Your task to perform on an android device: check data usage Image 0: 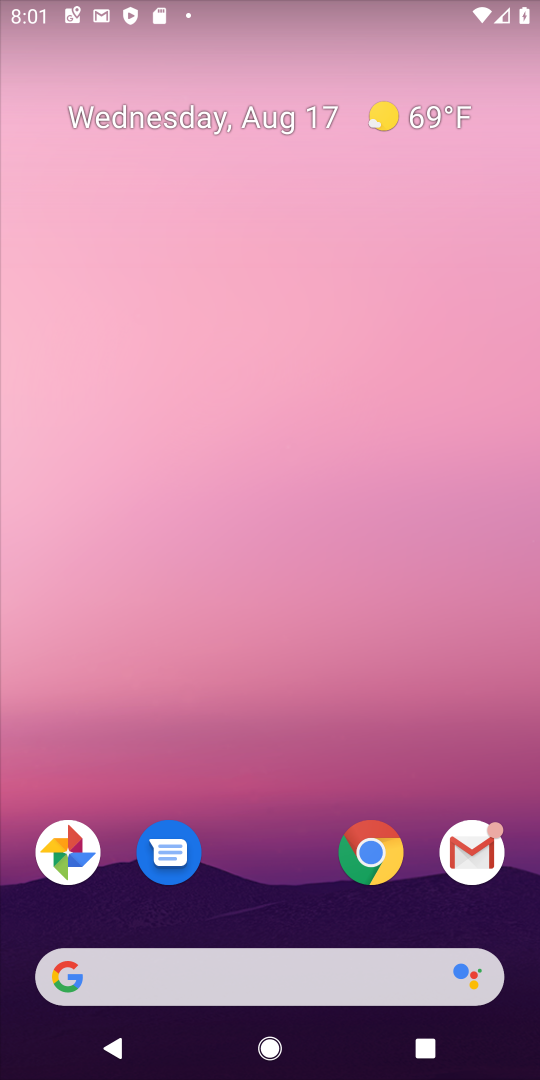
Step 0: drag from (267, 916) to (179, 415)
Your task to perform on an android device: check data usage Image 1: 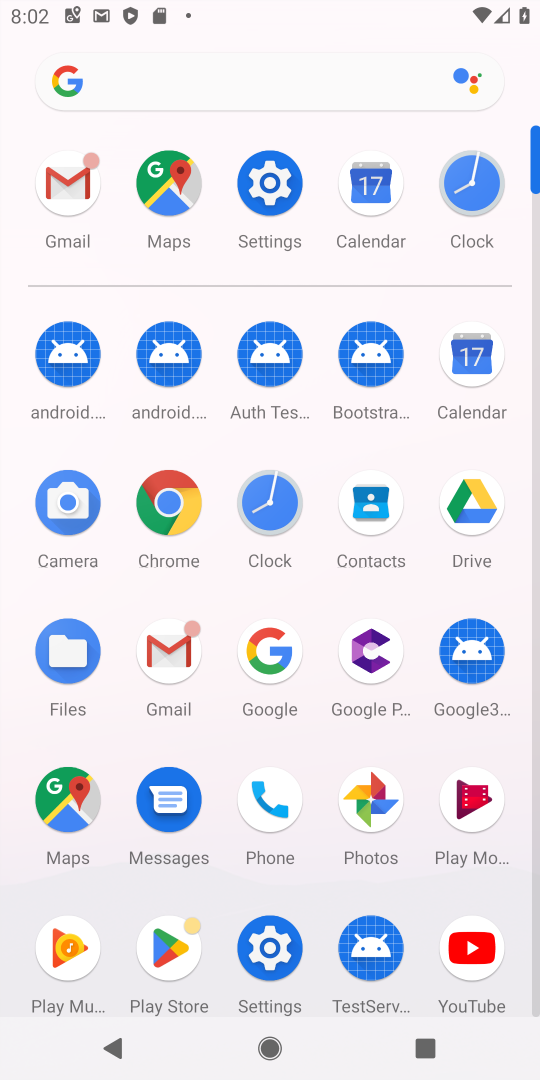
Step 1: click (265, 176)
Your task to perform on an android device: check data usage Image 2: 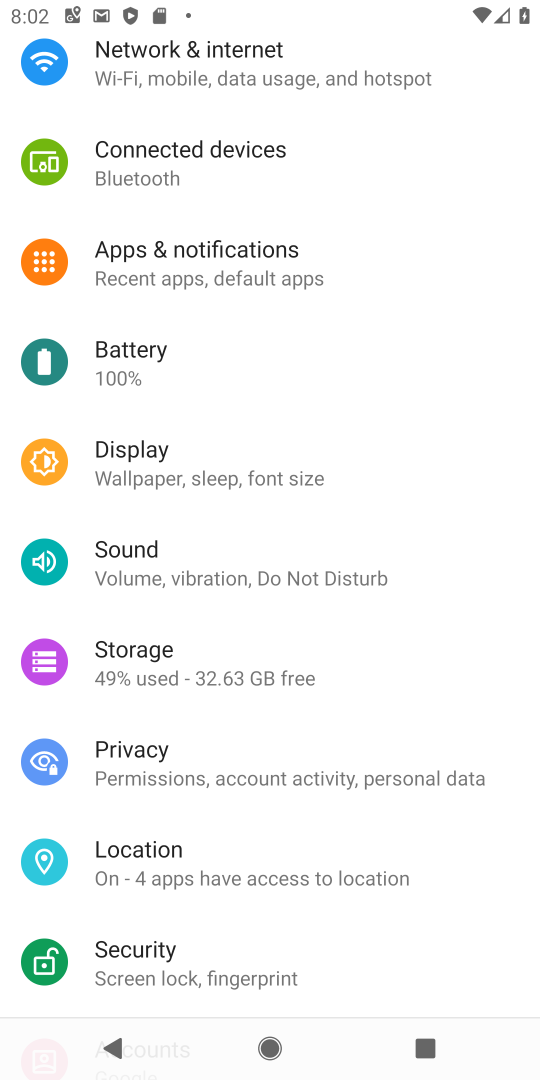
Step 2: click (191, 52)
Your task to perform on an android device: check data usage Image 3: 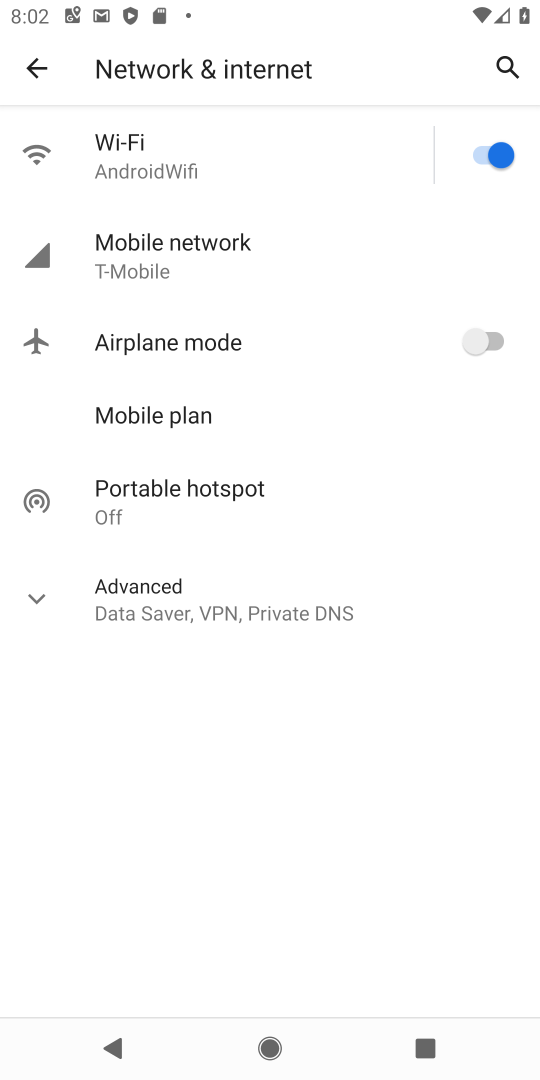
Step 3: click (134, 245)
Your task to perform on an android device: check data usage Image 4: 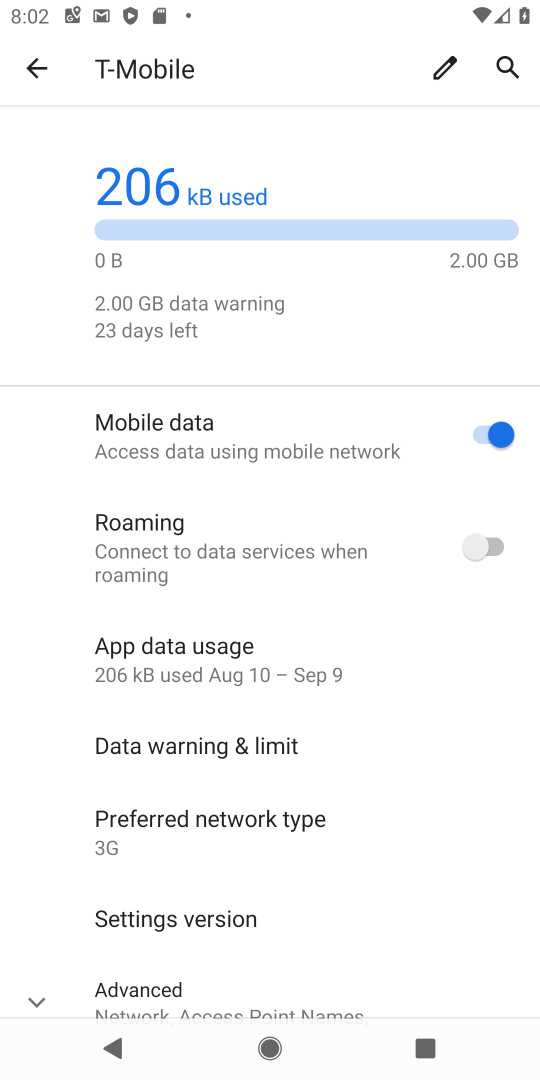
Step 4: task complete